Your task to perform on an android device: turn off translation in the chrome app Image 0: 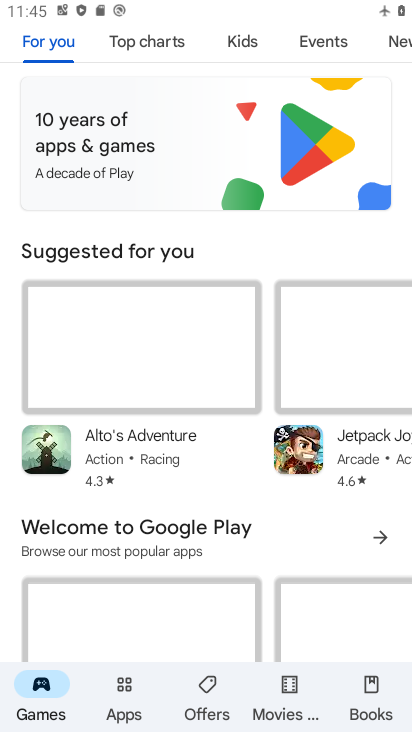
Step 0: press home button
Your task to perform on an android device: turn off translation in the chrome app Image 1: 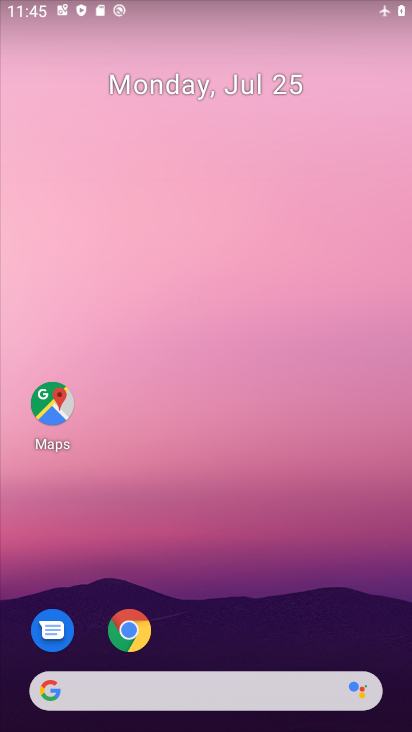
Step 1: drag from (312, 580) to (325, 74)
Your task to perform on an android device: turn off translation in the chrome app Image 2: 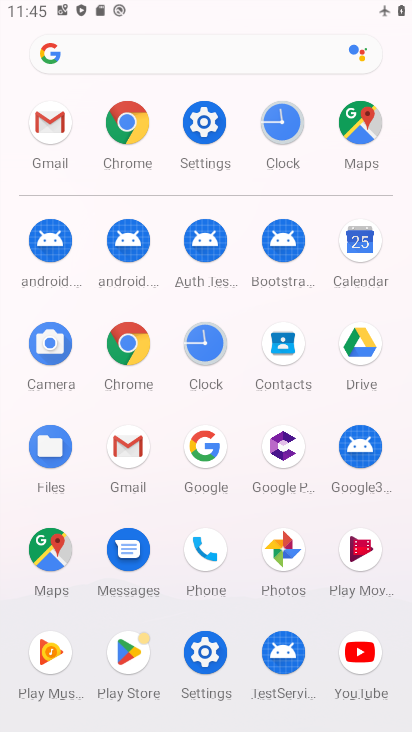
Step 2: click (125, 341)
Your task to perform on an android device: turn off translation in the chrome app Image 3: 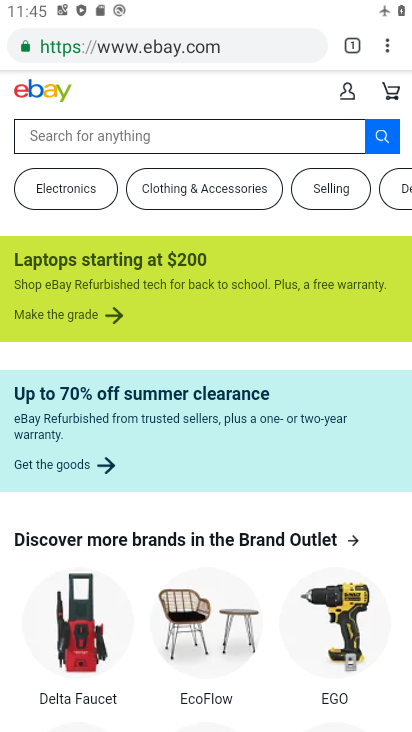
Step 3: click (385, 50)
Your task to perform on an android device: turn off translation in the chrome app Image 4: 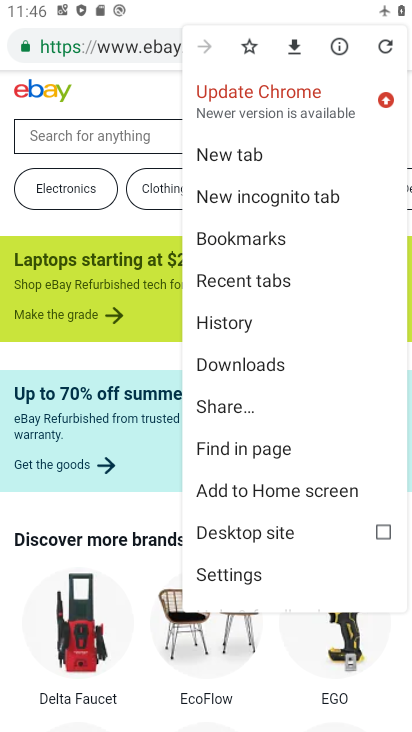
Step 4: click (283, 578)
Your task to perform on an android device: turn off translation in the chrome app Image 5: 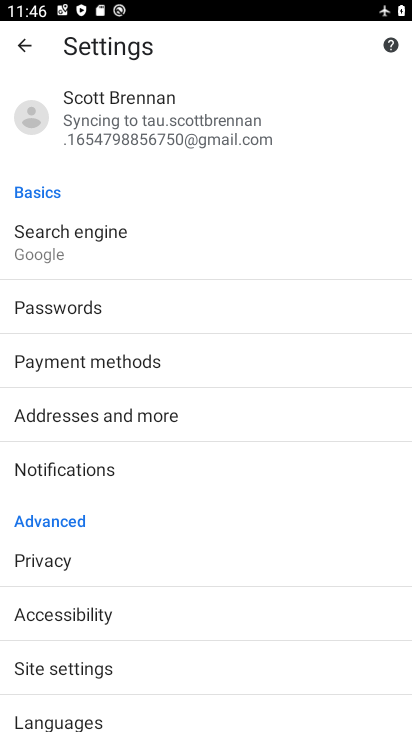
Step 5: drag from (283, 578) to (295, 366)
Your task to perform on an android device: turn off translation in the chrome app Image 6: 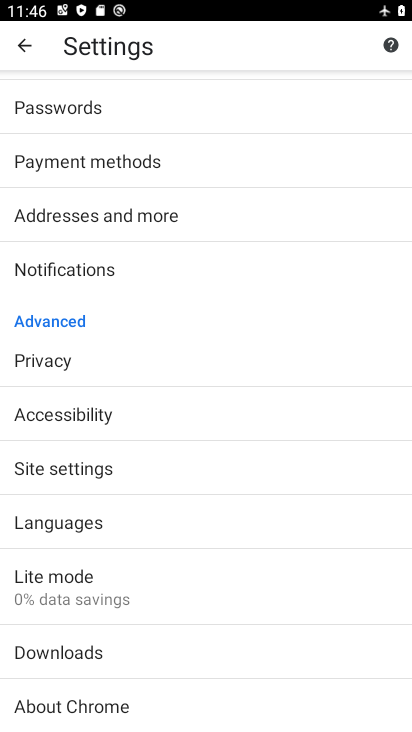
Step 6: drag from (275, 516) to (274, 407)
Your task to perform on an android device: turn off translation in the chrome app Image 7: 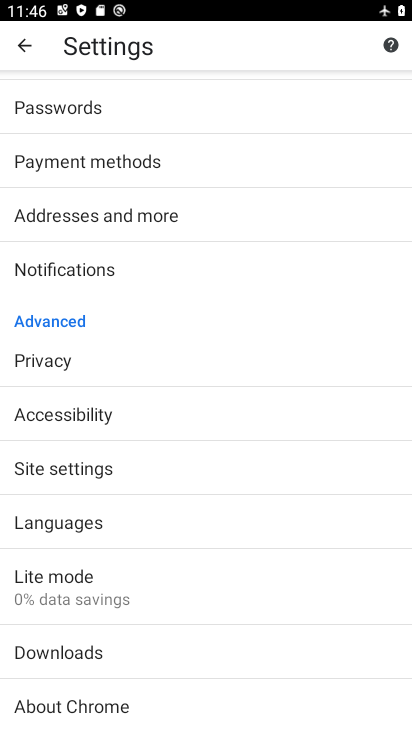
Step 7: click (176, 517)
Your task to perform on an android device: turn off translation in the chrome app Image 8: 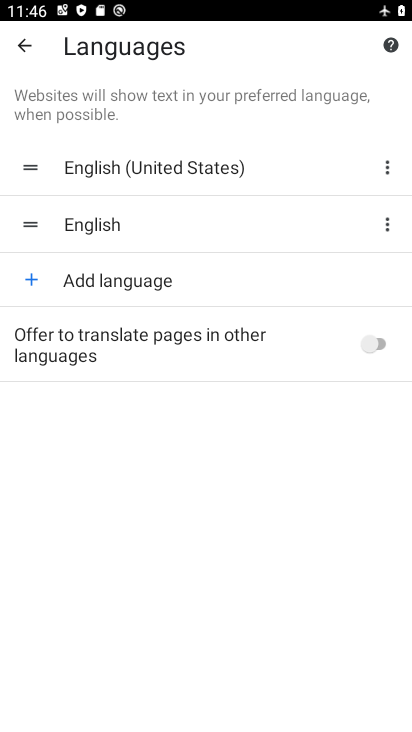
Step 8: task complete